Your task to perform on an android device: Open Youtube and go to the subscriptions tab Image 0: 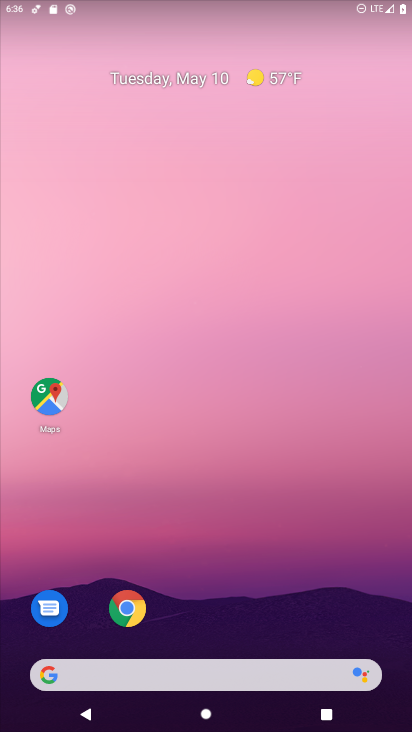
Step 0: drag from (313, 603) to (237, 43)
Your task to perform on an android device: Open Youtube and go to the subscriptions tab Image 1: 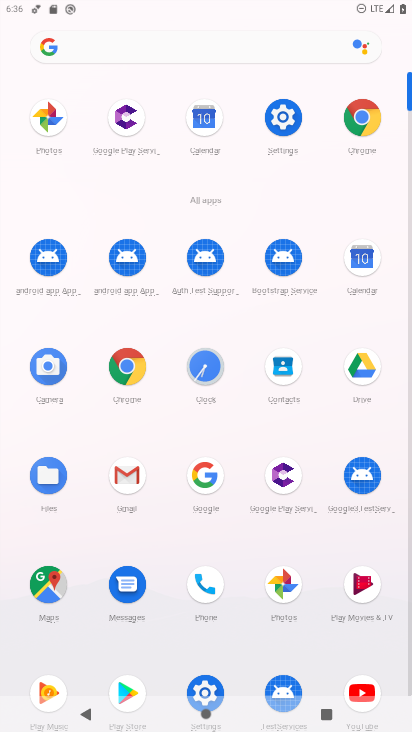
Step 1: click (351, 681)
Your task to perform on an android device: Open Youtube and go to the subscriptions tab Image 2: 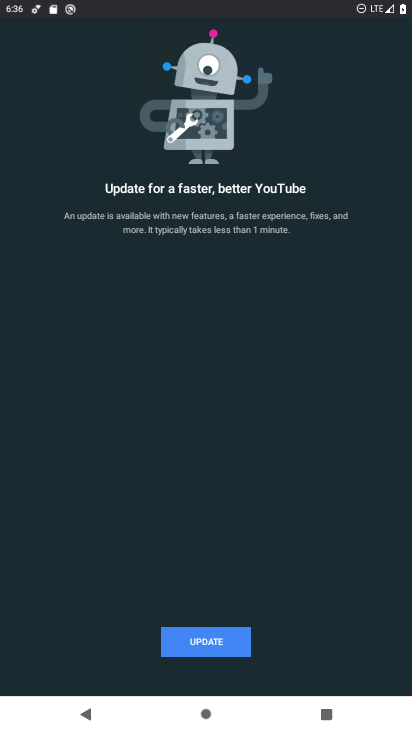
Step 2: click (198, 639)
Your task to perform on an android device: Open Youtube and go to the subscriptions tab Image 3: 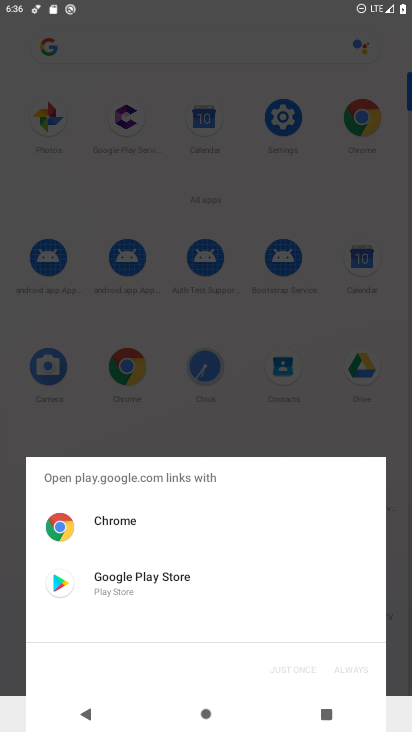
Step 3: click (146, 586)
Your task to perform on an android device: Open Youtube and go to the subscriptions tab Image 4: 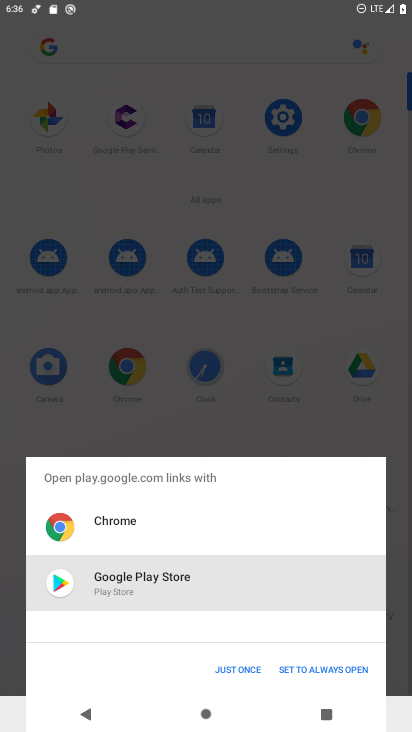
Step 4: click (259, 675)
Your task to perform on an android device: Open Youtube and go to the subscriptions tab Image 5: 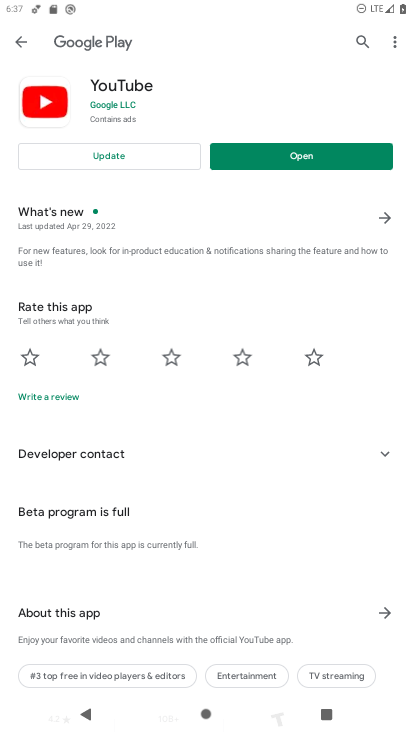
Step 5: click (173, 158)
Your task to perform on an android device: Open Youtube and go to the subscriptions tab Image 6: 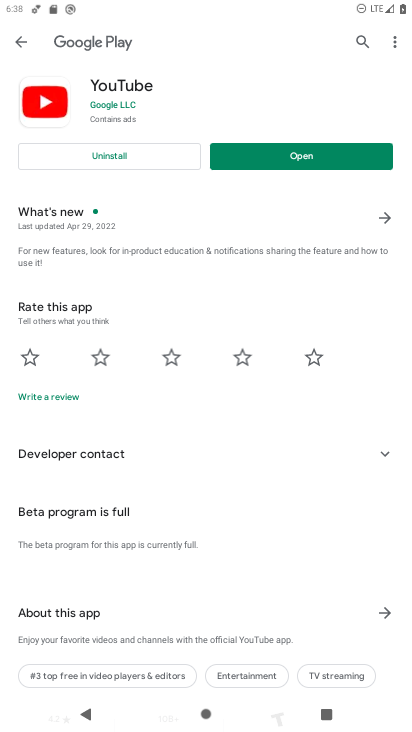
Step 6: click (283, 149)
Your task to perform on an android device: Open Youtube and go to the subscriptions tab Image 7: 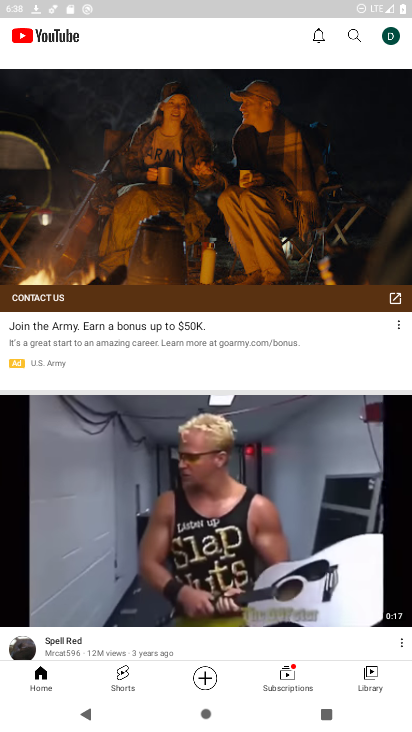
Step 7: click (285, 674)
Your task to perform on an android device: Open Youtube and go to the subscriptions tab Image 8: 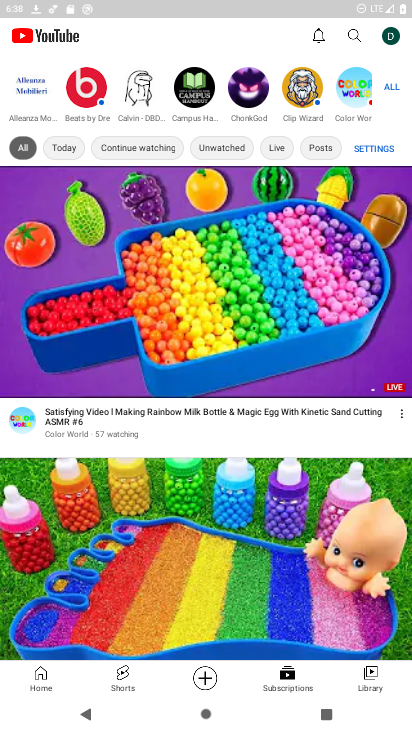
Step 8: task complete